Your task to perform on an android device: Open the stopwatch Image 0: 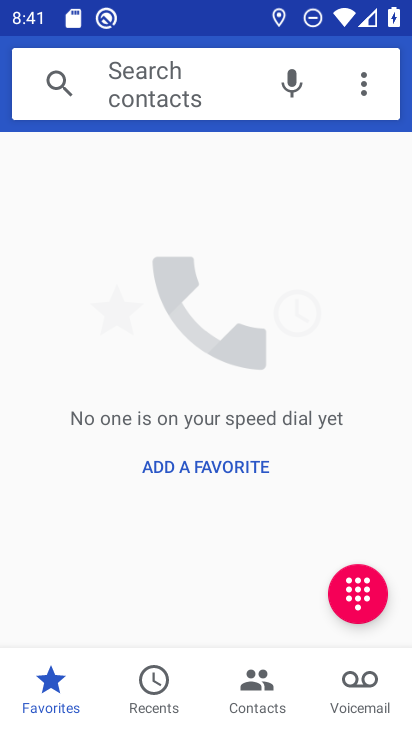
Step 0: press home button
Your task to perform on an android device: Open the stopwatch Image 1: 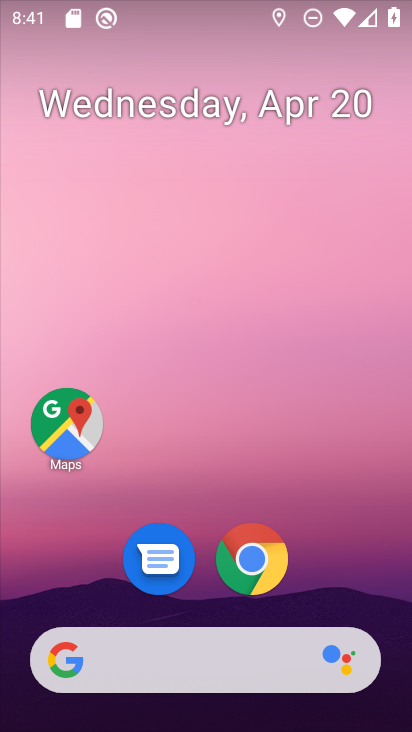
Step 1: drag from (338, 594) to (260, 66)
Your task to perform on an android device: Open the stopwatch Image 2: 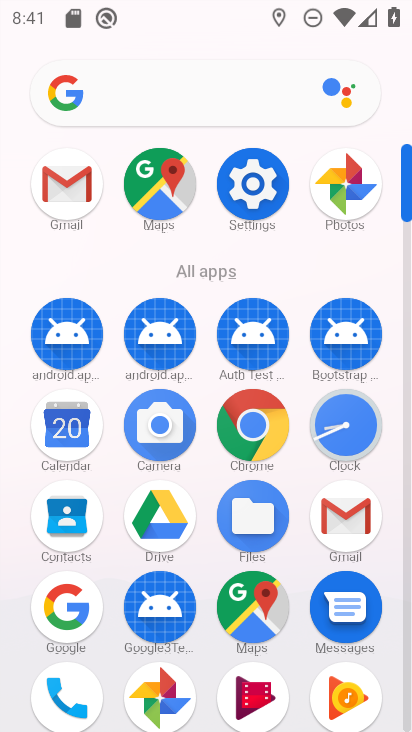
Step 2: click (408, 689)
Your task to perform on an android device: Open the stopwatch Image 3: 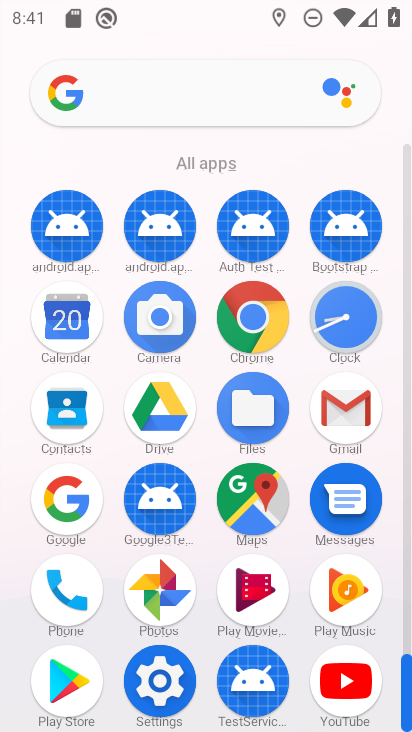
Step 3: click (340, 316)
Your task to perform on an android device: Open the stopwatch Image 4: 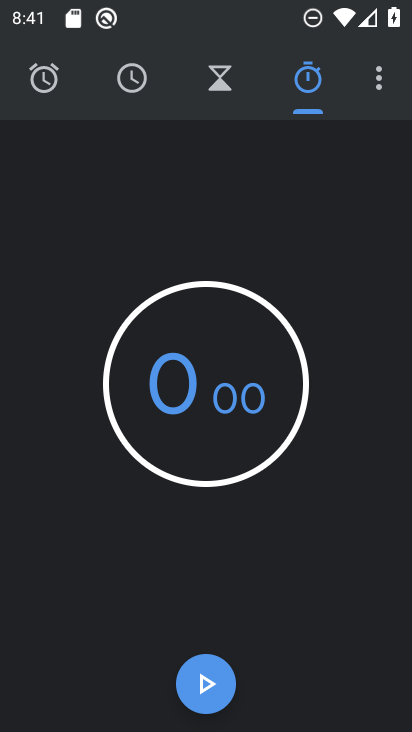
Step 4: task complete